Your task to perform on an android device: turn vacation reply on in the gmail app Image 0: 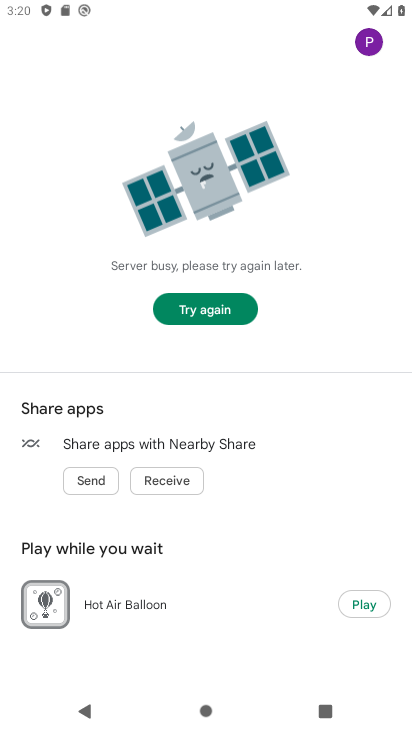
Step 0: press home button
Your task to perform on an android device: turn vacation reply on in the gmail app Image 1: 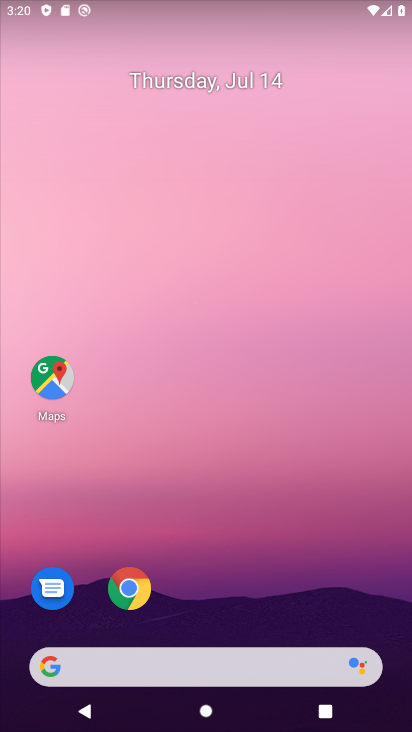
Step 1: drag from (205, 650) to (313, 130)
Your task to perform on an android device: turn vacation reply on in the gmail app Image 2: 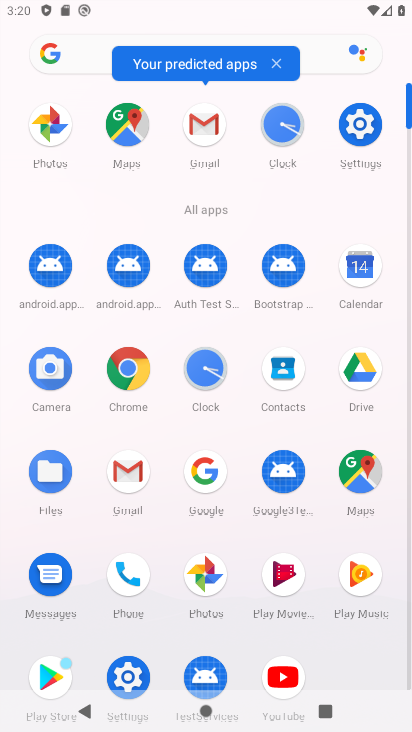
Step 2: click (116, 477)
Your task to perform on an android device: turn vacation reply on in the gmail app Image 3: 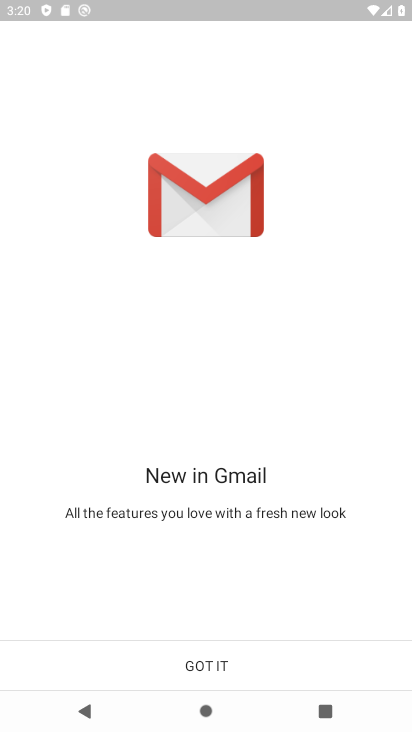
Step 3: click (207, 661)
Your task to perform on an android device: turn vacation reply on in the gmail app Image 4: 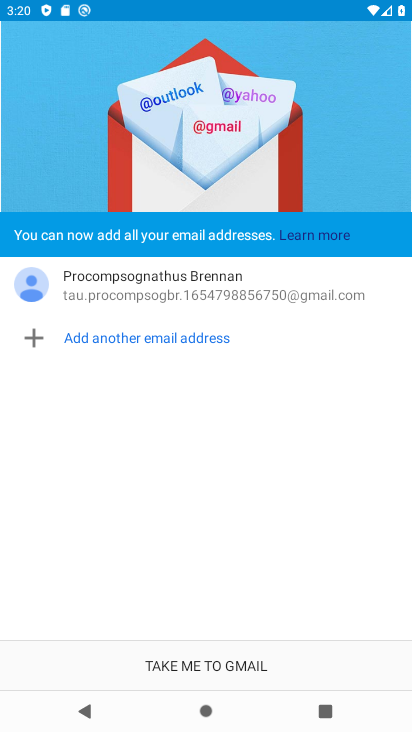
Step 4: click (226, 672)
Your task to perform on an android device: turn vacation reply on in the gmail app Image 5: 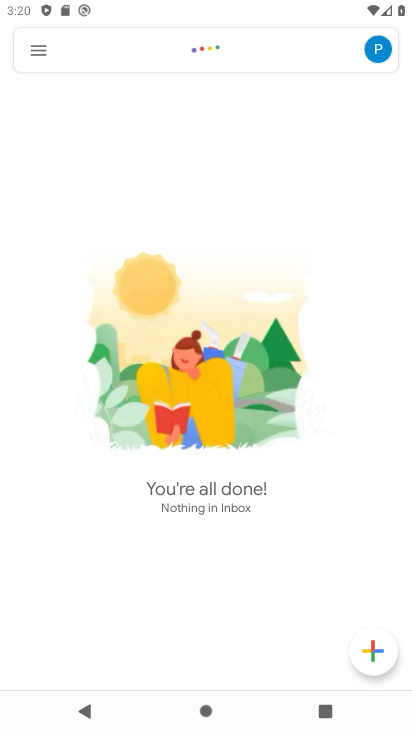
Step 5: click (55, 59)
Your task to perform on an android device: turn vacation reply on in the gmail app Image 6: 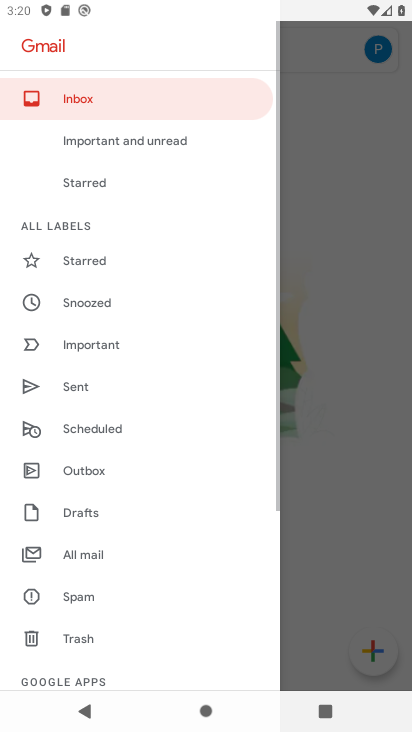
Step 6: drag from (104, 558) to (143, 158)
Your task to perform on an android device: turn vacation reply on in the gmail app Image 7: 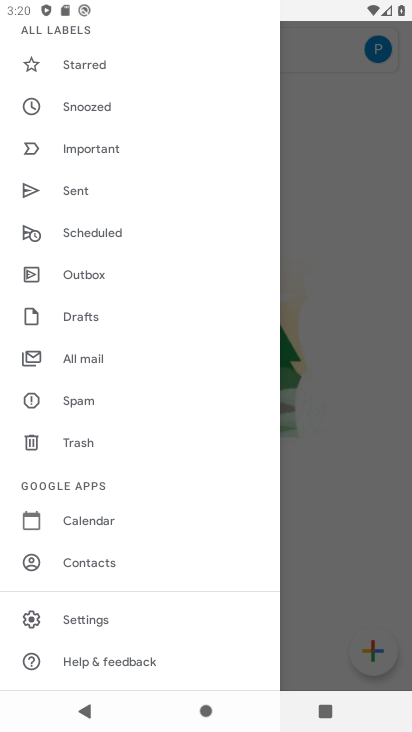
Step 7: click (105, 624)
Your task to perform on an android device: turn vacation reply on in the gmail app Image 8: 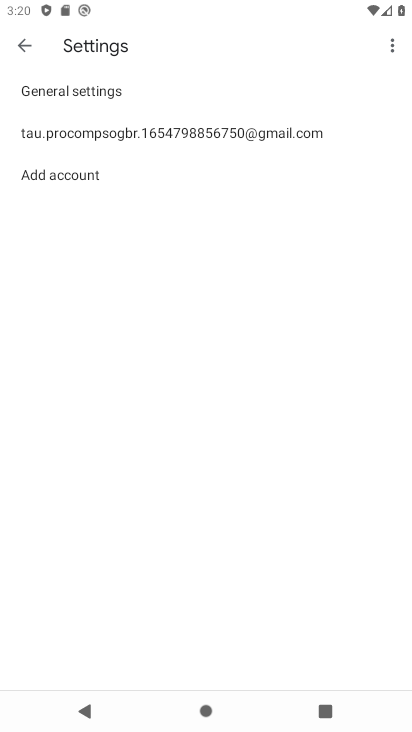
Step 8: click (156, 138)
Your task to perform on an android device: turn vacation reply on in the gmail app Image 9: 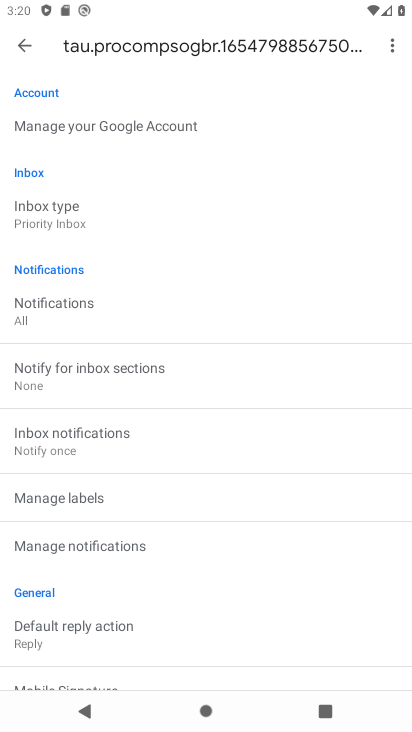
Step 9: drag from (153, 529) to (201, 305)
Your task to perform on an android device: turn vacation reply on in the gmail app Image 10: 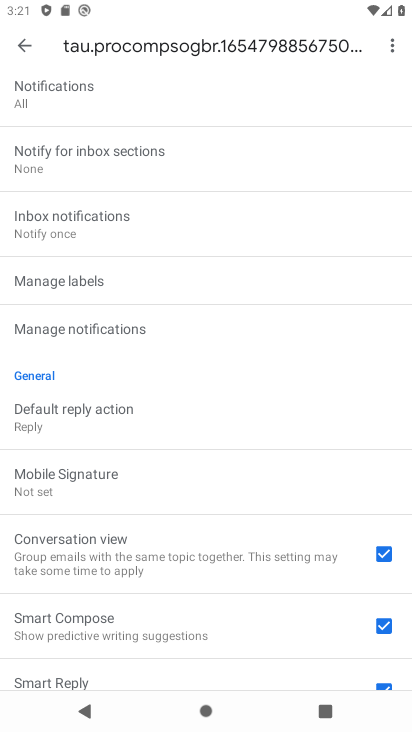
Step 10: drag from (99, 575) to (178, 251)
Your task to perform on an android device: turn vacation reply on in the gmail app Image 11: 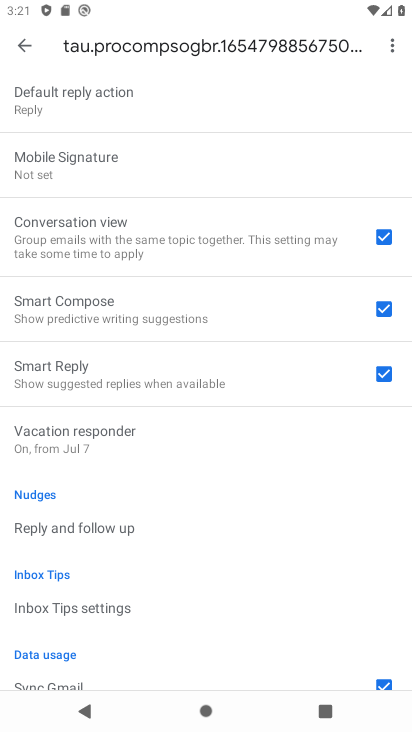
Step 11: click (119, 432)
Your task to perform on an android device: turn vacation reply on in the gmail app Image 12: 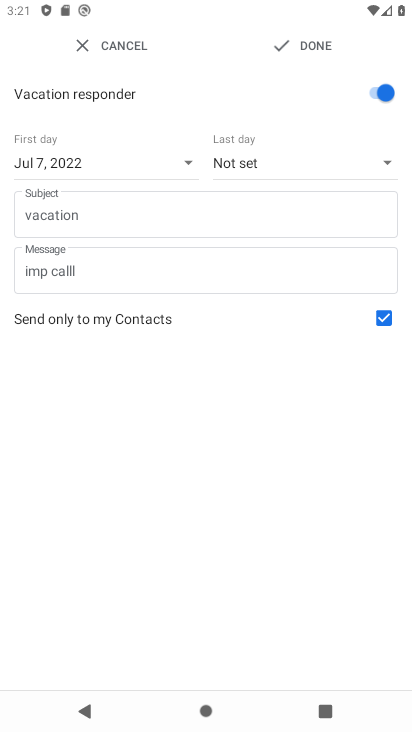
Step 12: click (339, 39)
Your task to perform on an android device: turn vacation reply on in the gmail app Image 13: 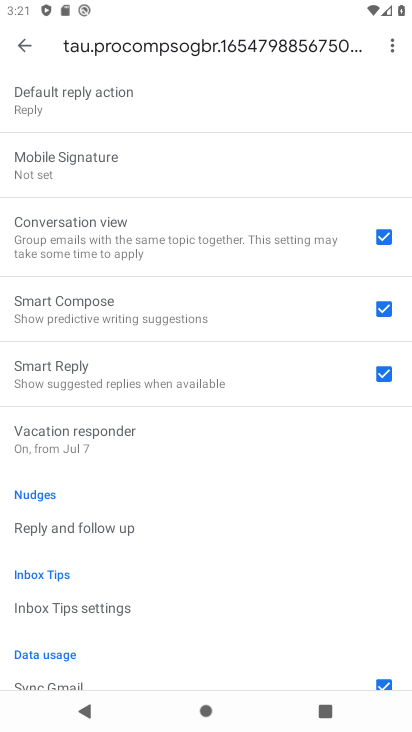
Step 13: task complete